Your task to perform on an android device: turn on sleep mode Image 0: 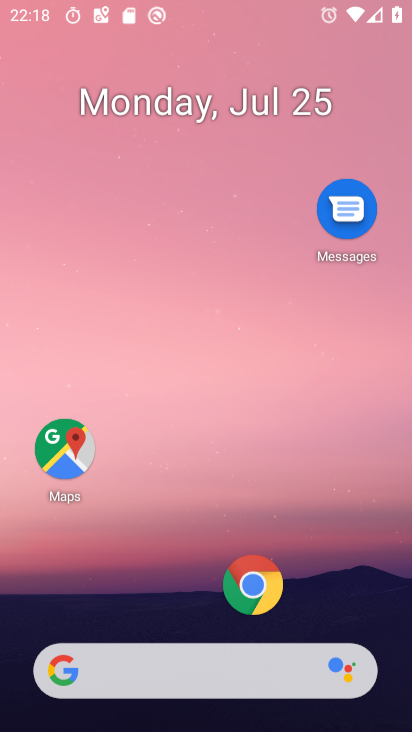
Step 0: press home button
Your task to perform on an android device: turn on sleep mode Image 1: 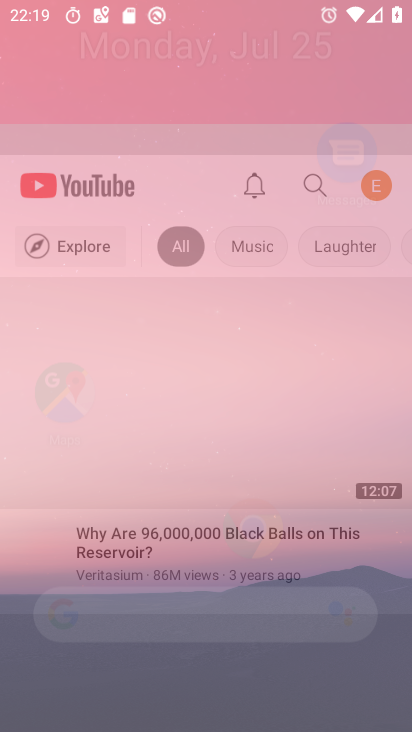
Step 1: drag from (218, 663) to (243, 107)
Your task to perform on an android device: turn on sleep mode Image 2: 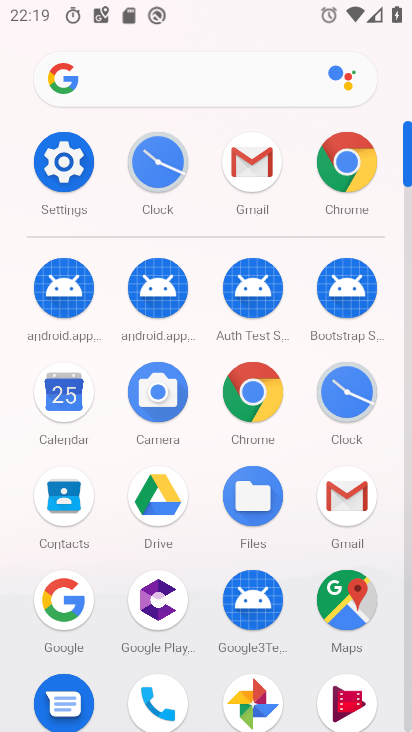
Step 2: drag from (206, 660) to (229, 129)
Your task to perform on an android device: turn on sleep mode Image 3: 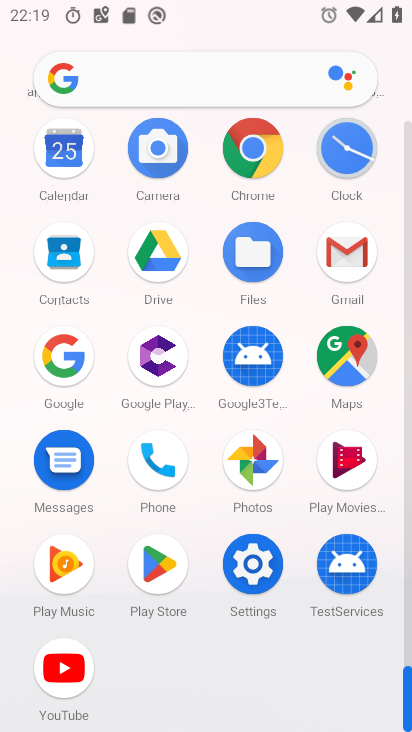
Step 3: drag from (214, 308) to (228, 716)
Your task to perform on an android device: turn on sleep mode Image 4: 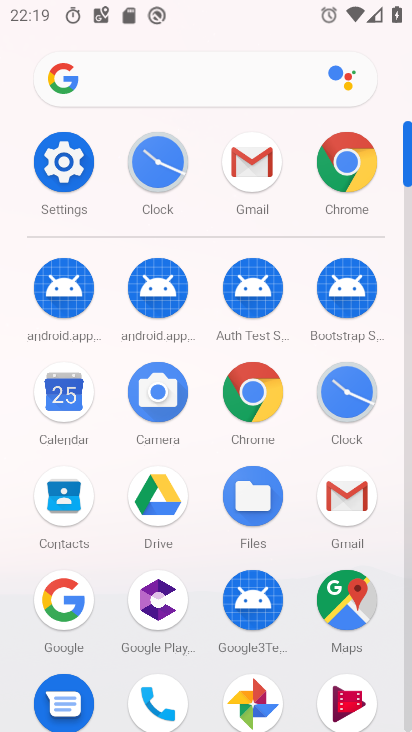
Step 4: click (71, 165)
Your task to perform on an android device: turn on sleep mode Image 5: 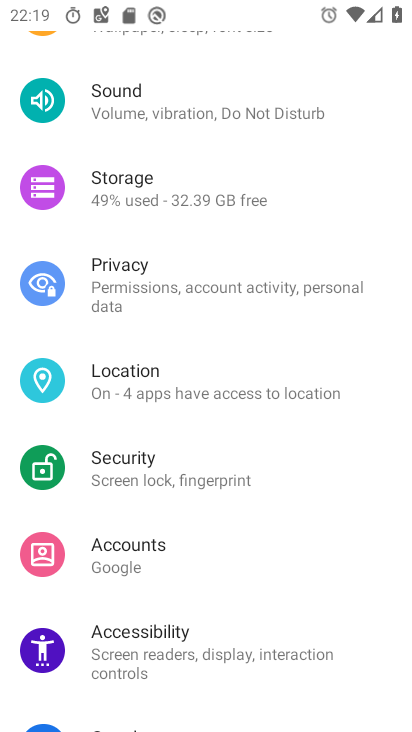
Step 5: drag from (283, 191) to (265, 519)
Your task to perform on an android device: turn on sleep mode Image 6: 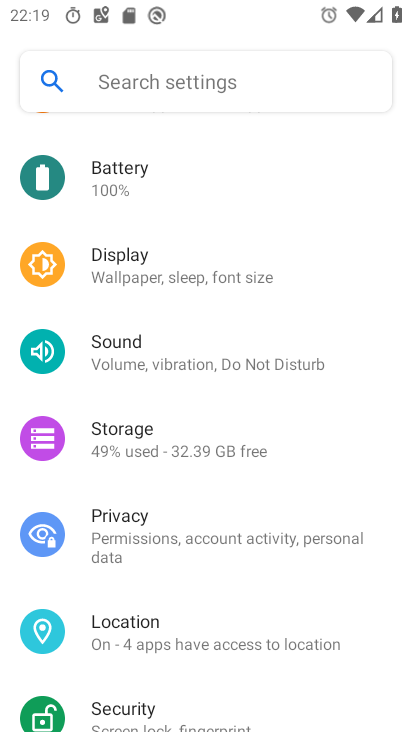
Step 6: click (183, 271)
Your task to perform on an android device: turn on sleep mode Image 7: 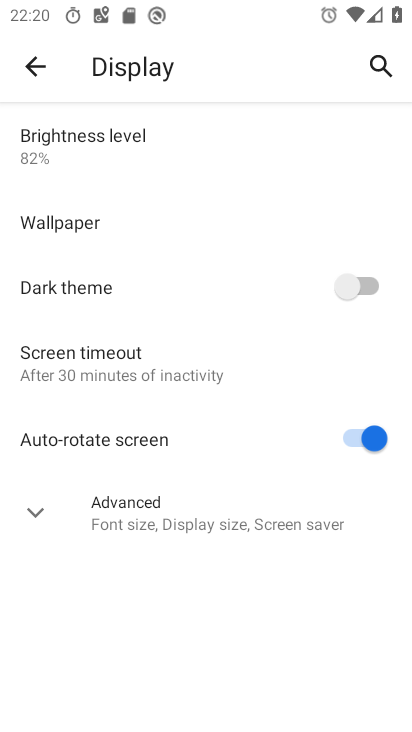
Step 7: task complete